Your task to perform on an android device: toggle data saver in the chrome app Image 0: 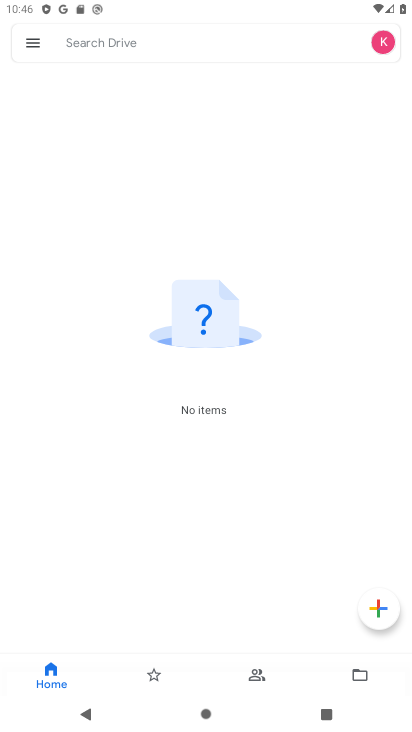
Step 0: press home button
Your task to perform on an android device: toggle data saver in the chrome app Image 1: 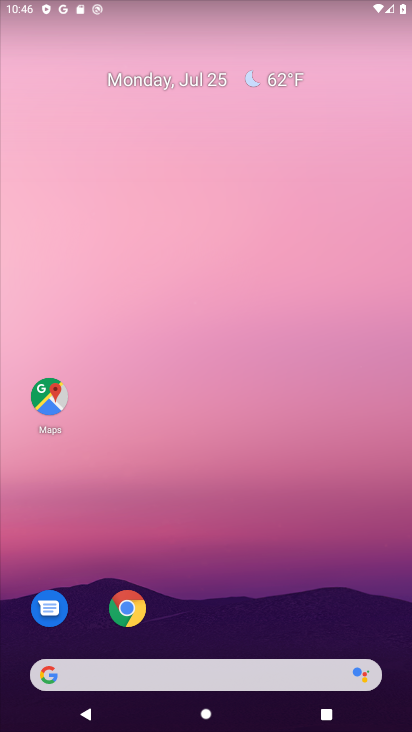
Step 1: click (130, 600)
Your task to perform on an android device: toggle data saver in the chrome app Image 2: 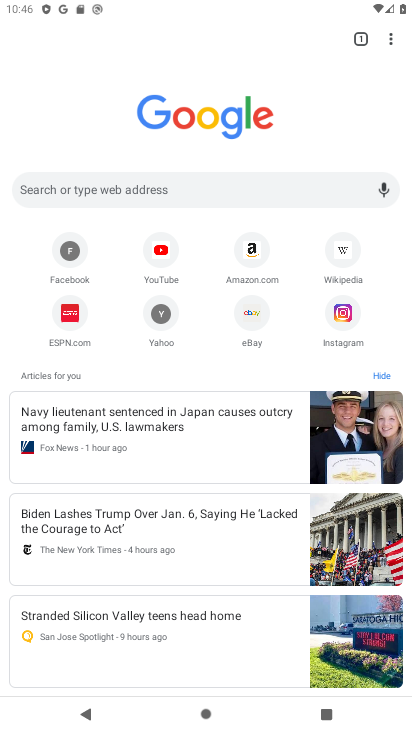
Step 2: task complete